Your task to perform on an android device: turn off airplane mode Image 0: 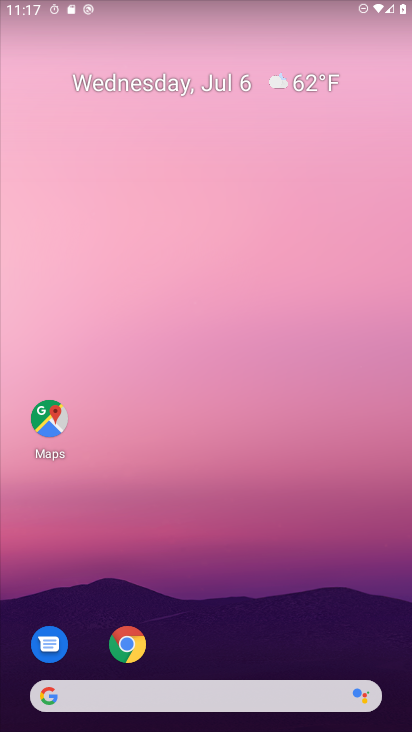
Step 0: press home button
Your task to perform on an android device: turn off airplane mode Image 1: 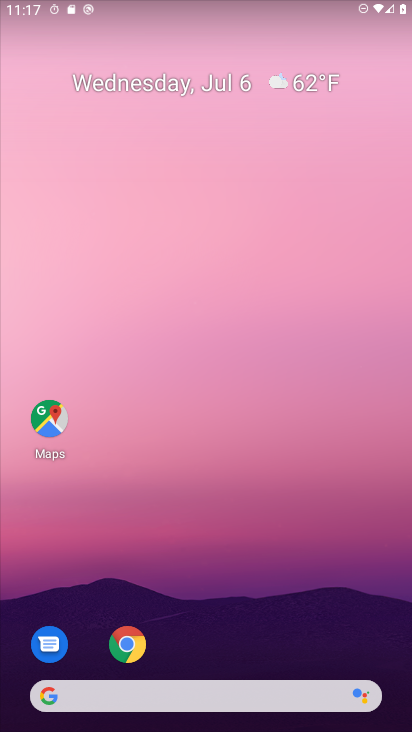
Step 1: task complete